Your task to perform on an android device: Open sound settings Image 0: 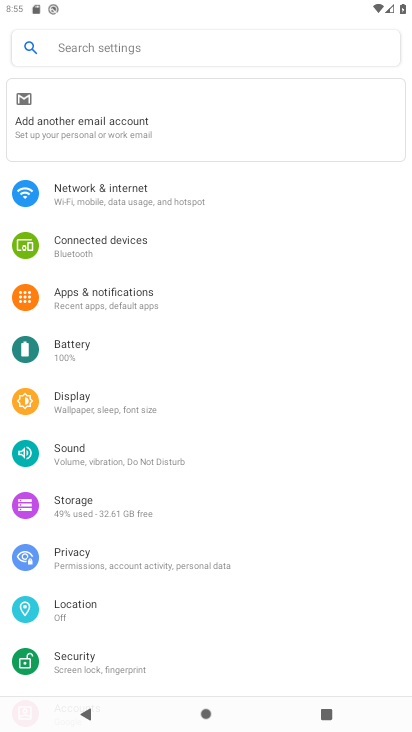
Step 0: press back button
Your task to perform on an android device: Open sound settings Image 1: 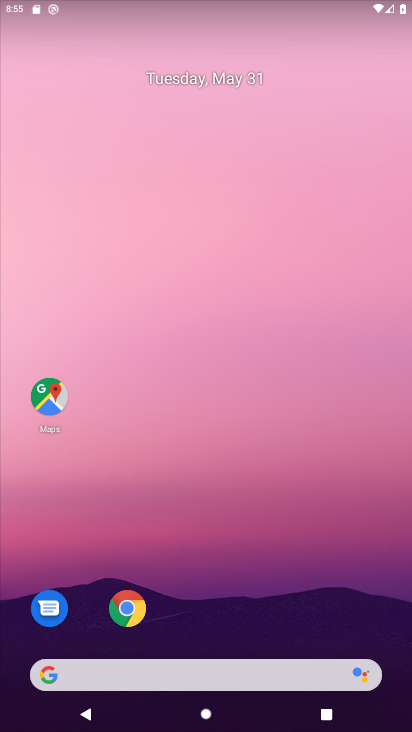
Step 1: drag from (257, 595) to (161, 30)
Your task to perform on an android device: Open sound settings Image 2: 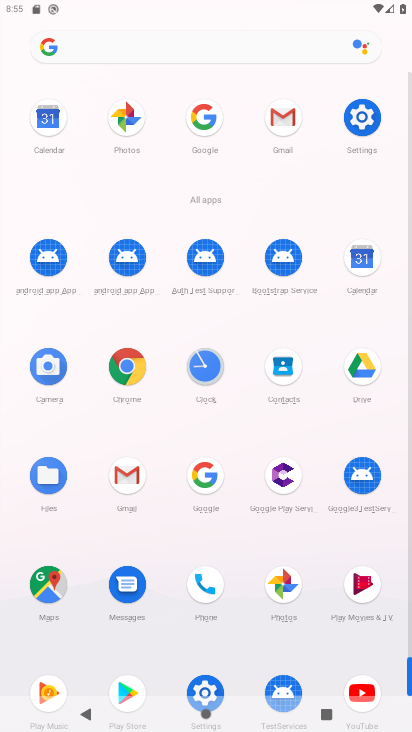
Step 2: click (362, 118)
Your task to perform on an android device: Open sound settings Image 3: 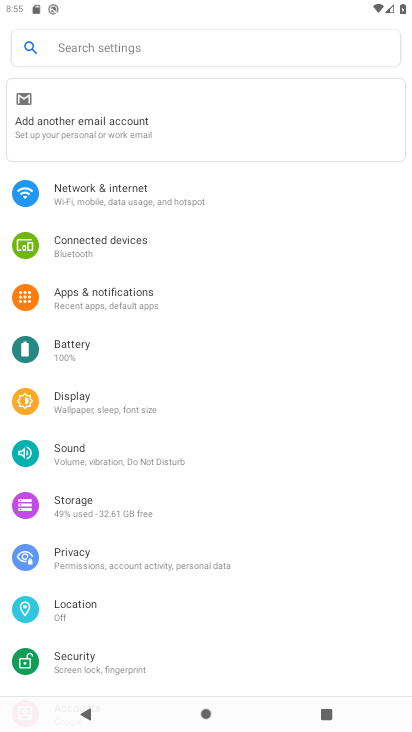
Step 3: click (98, 462)
Your task to perform on an android device: Open sound settings Image 4: 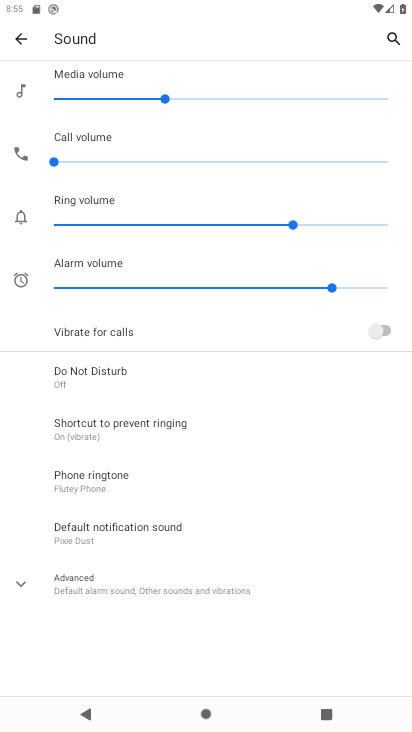
Step 4: task complete